Your task to perform on an android device: turn pop-ups off in chrome Image 0: 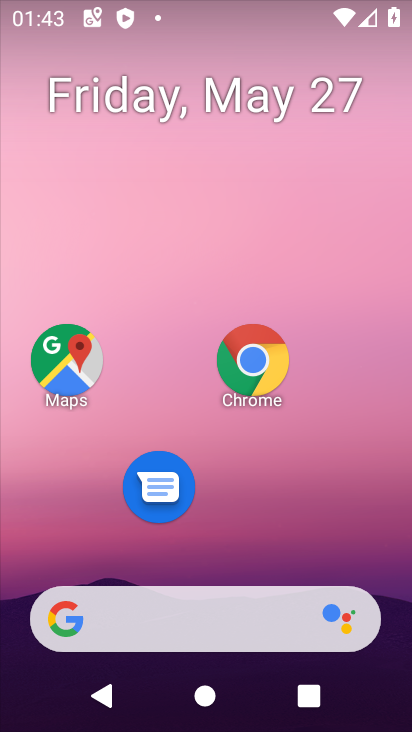
Step 0: click (256, 357)
Your task to perform on an android device: turn pop-ups off in chrome Image 1: 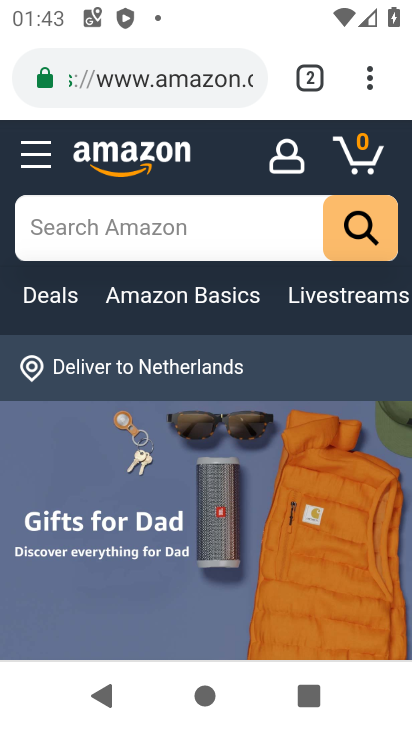
Step 1: click (359, 78)
Your task to perform on an android device: turn pop-ups off in chrome Image 2: 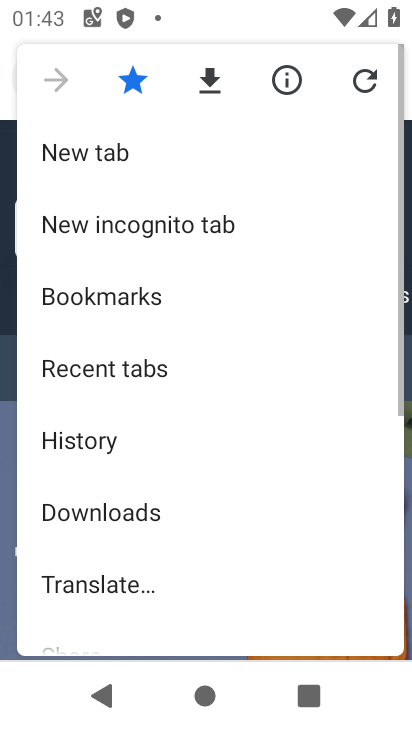
Step 2: drag from (149, 585) to (225, 127)
Your task to perform on an android device: turn pop-ups off in chrome Image 3: 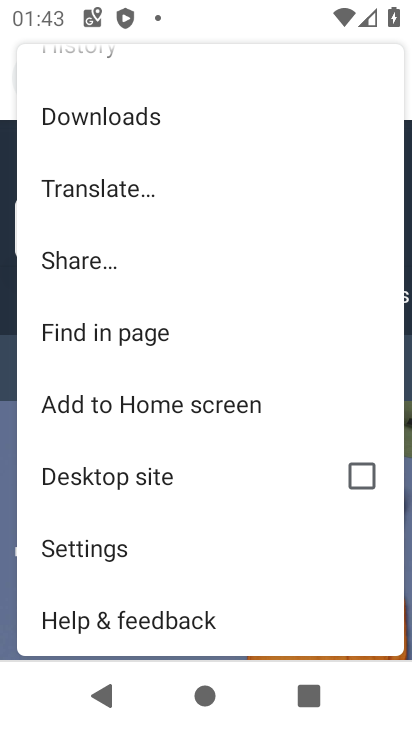
Step 3: click (97, 550)
Your task to perform on an android device: turn pop-ups off in chrome Image 4: 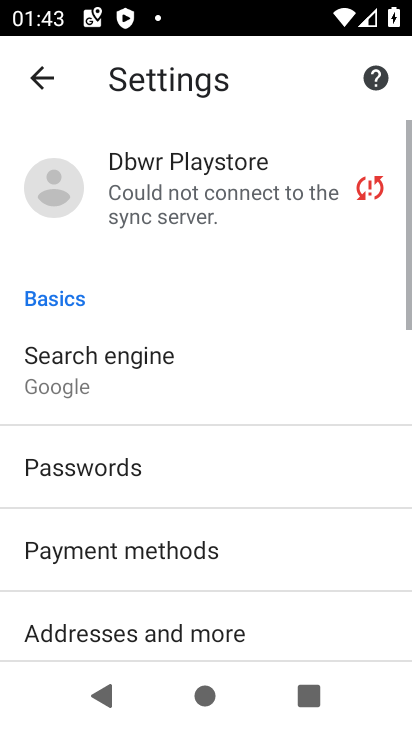
Step 4: drag from (254, 533) to (256, 46)
Your task to perform on an android device: turn pop-ups off in chrome Image 5: 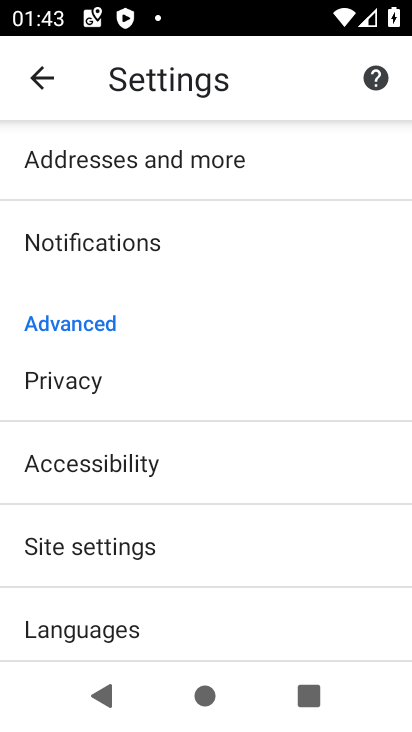
Step 5: click (58, 545)
Your task to perform on an android device: turn pop-ups off in chrome Image 6: 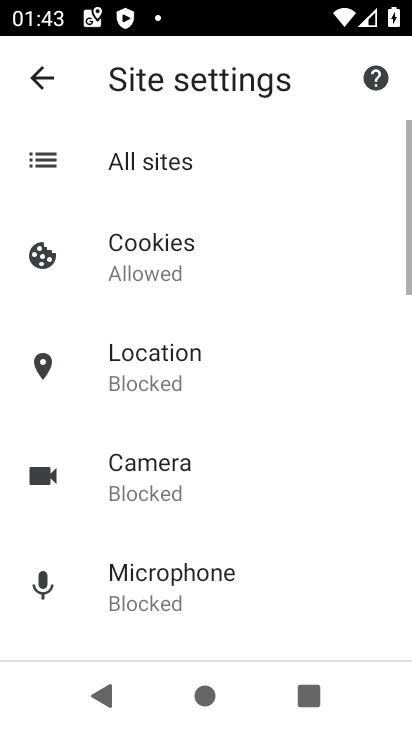
Step 6: drag from (257, 494) to (283, 129)
Your task to perform on an android device: turn pop-ups off in chrome Image 7: 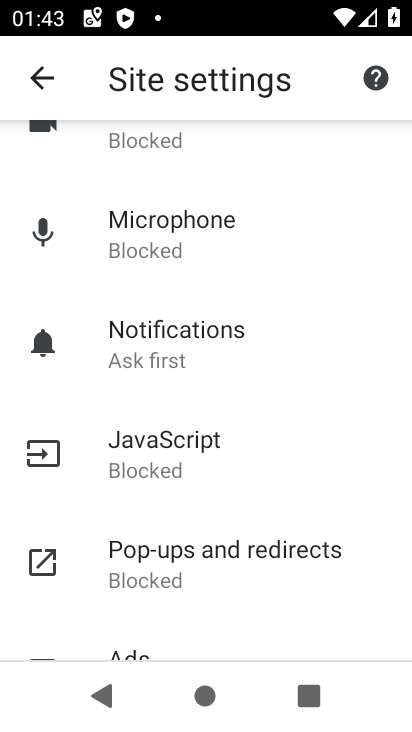
Step 7: drag from (227, 622) to (224, 393)
Your task to perform on an android device: turn pop-ups off in chrome Image 8: 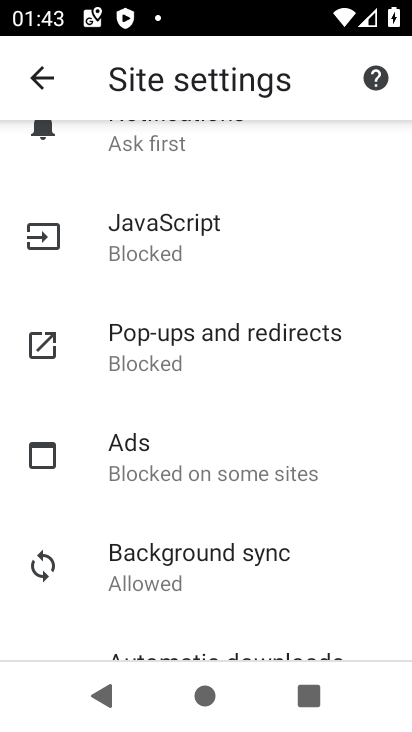
Step 8: click (179, 358)
Your task to perform on an android device: turn pop-ups off in chrome Image 9: 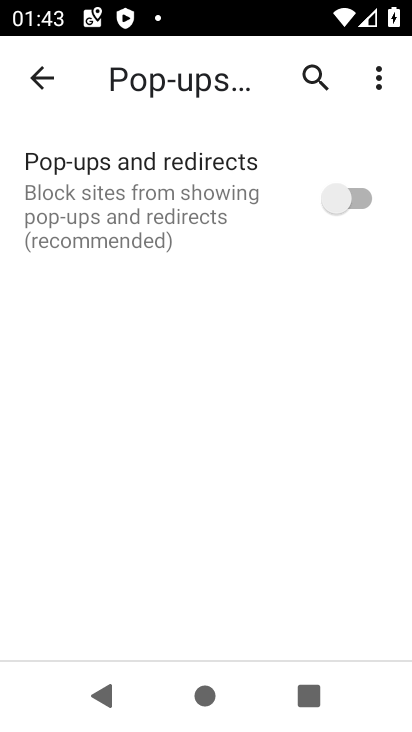
Step 9: task complete